Your task to perform on an android device: turn on translation in the chrome app Image 0: 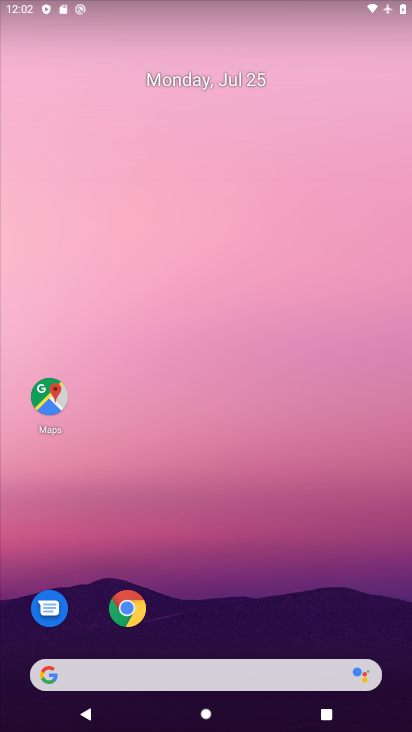
Step 0: drag from (150, 629) to (38, 416)
Your task to perform on an android device: turn on translation in the chrome app Image 1: 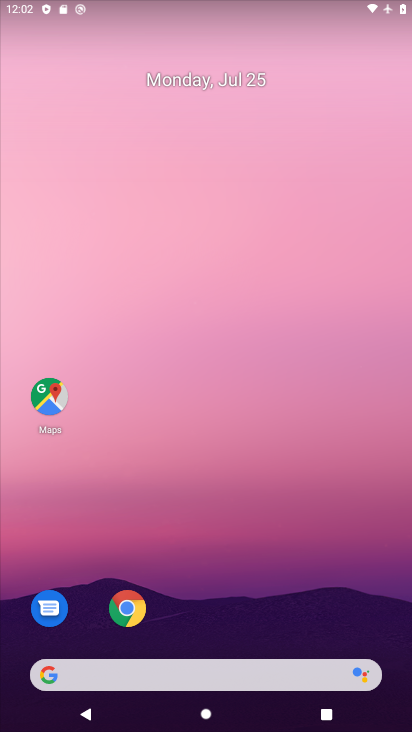
Step 1: drag from (242, 585) to (242, 0)
Your task to perform on an android device: turn on translation in the chrome app Image 2: 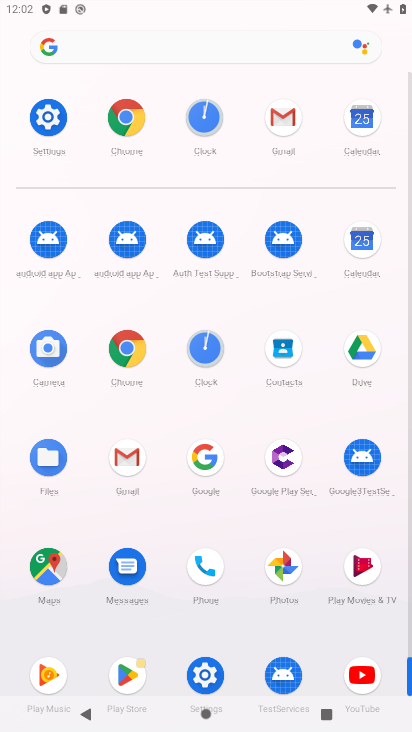
Step 2: click (140, 359)
Your task to perform on an android device: turn on translation in the chrome app Image 3: 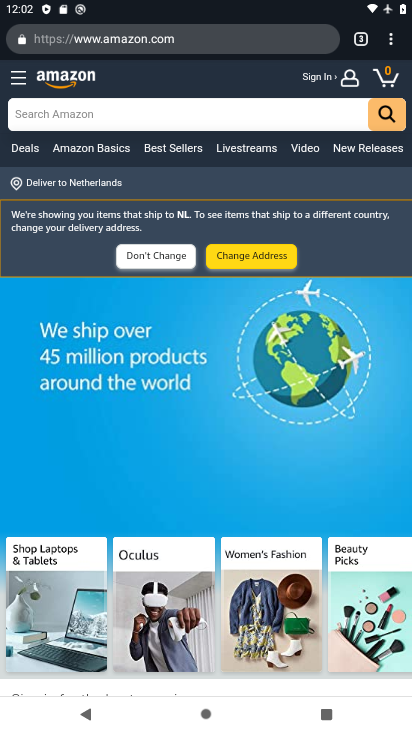
Step 3: click (388, 46)
Your task to perform on an android device: turn on translation in the chrome app Image 4: 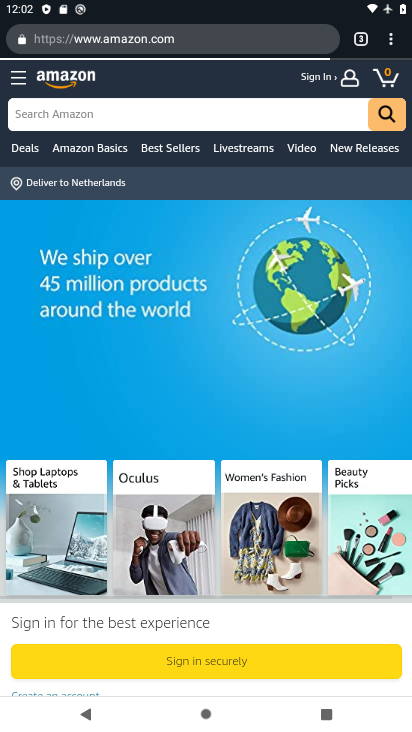
Step 4: click (399, 46)
Your task to perform on an android device: turn on translation in the chrome app Image 5: 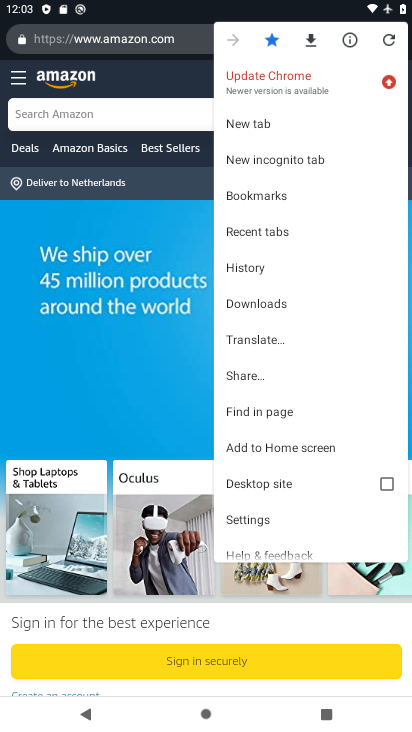
Step 5: click (280, 332)
Your task to perform on an android device: turn on translation in the chrome app Image 6: 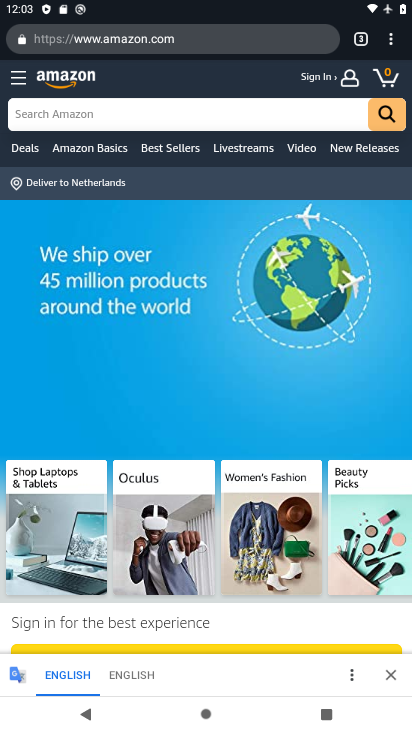
Step 6: click (359, 670)
Your task to perform on an android device: turn on translation in the chrome app Image 7: 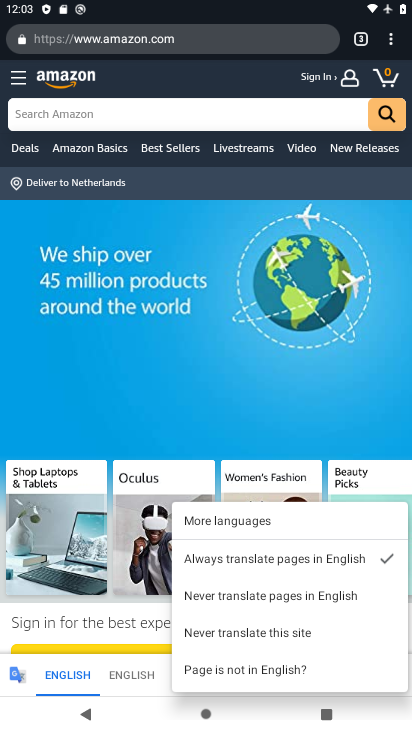
Step 7: task complete